Your task to perform on an android device: Open the map Image 0: 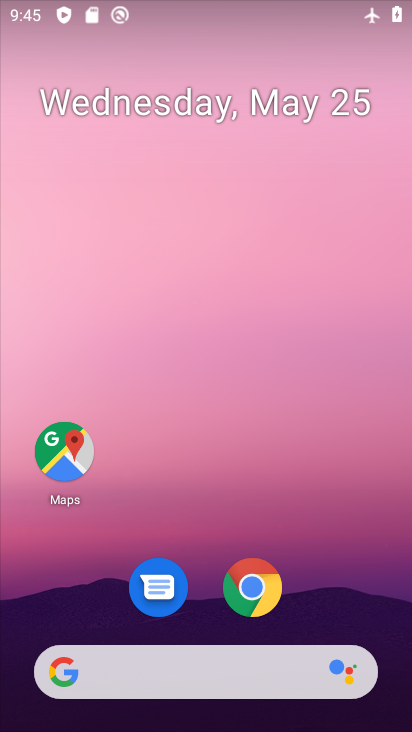
Step 0: click (83, 453)
Your task to perform on an android device: Open the map Image 1: 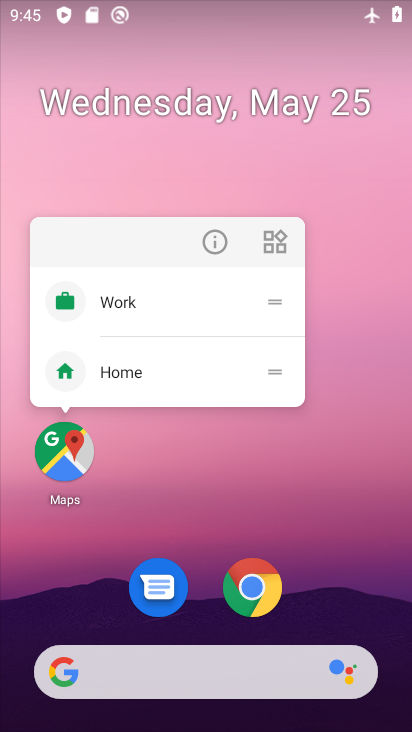
Step 1: click (83, 453)
Your task to perform on an android device: Open the map Image 2: 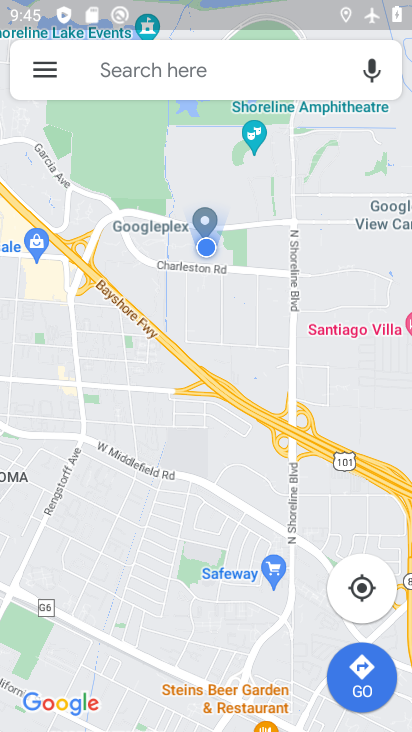
Step 2: task complete